Your task to perform on an android device: Show me recent news Image 0: 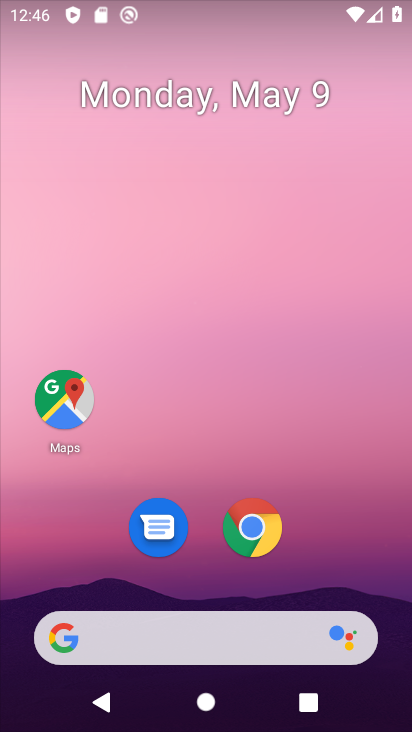
Step 0: drag from (317, 574) to (294, 1)
Your task to perform on an android device: Show me recent news Image 1: 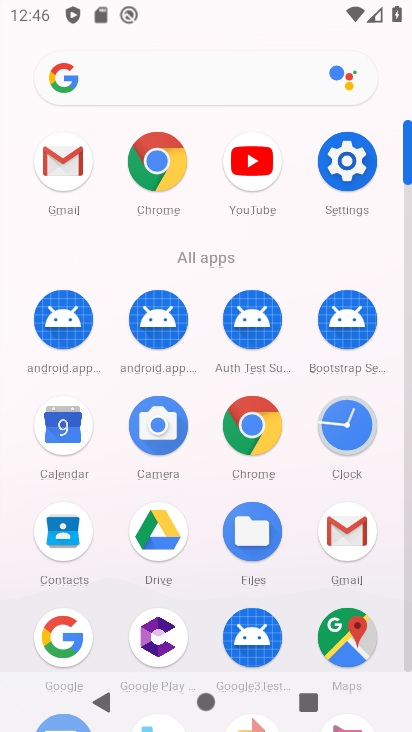
Step 1: click (213, 83)
Your task to perform on an android device: Show me recent news Image 2: 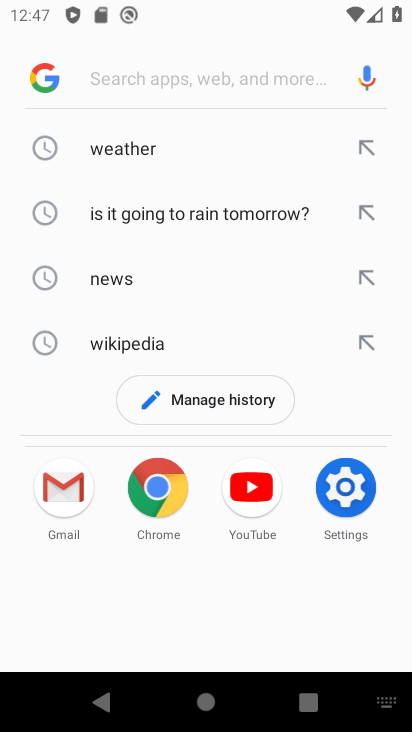
Step 2: type "recent news"
Your task to perform on an android device: Show me recent news Image 3: 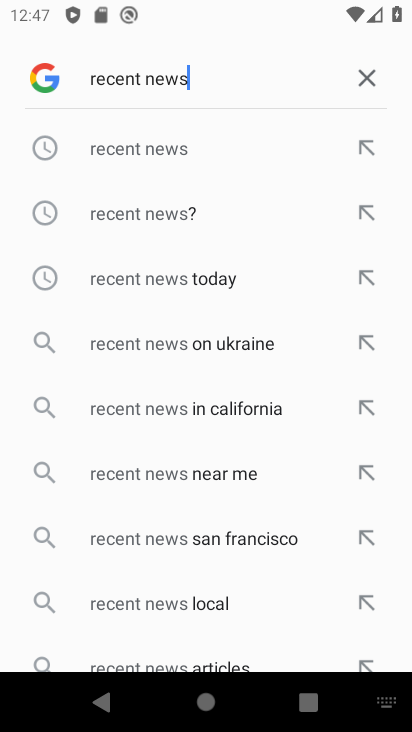
Step 3: click (147, 164)
Your task to perform on an android device: Show me recent news Image 4: 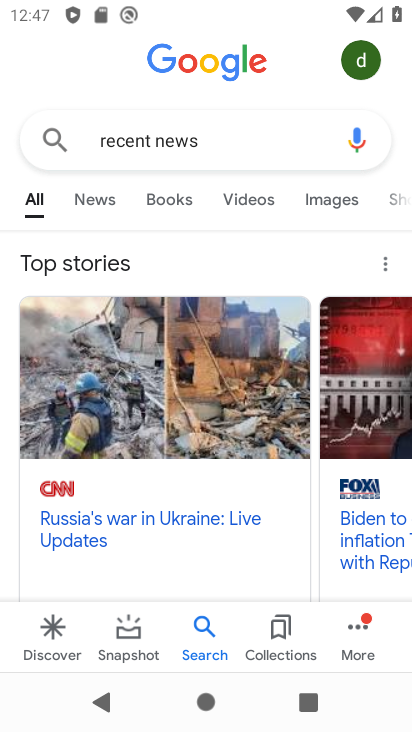
Step 4: click (98, 205)
Your task to perform on an android device: Show me recent news Image 5: 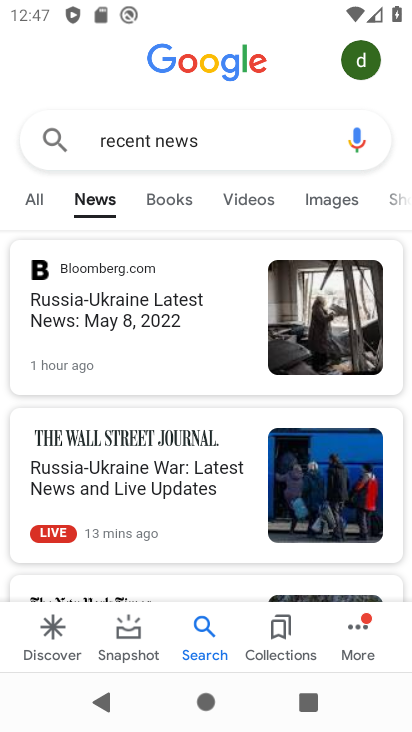
Step 5: task complete